Your task to perform on an android device: add a contact in the contacts app Image 0: 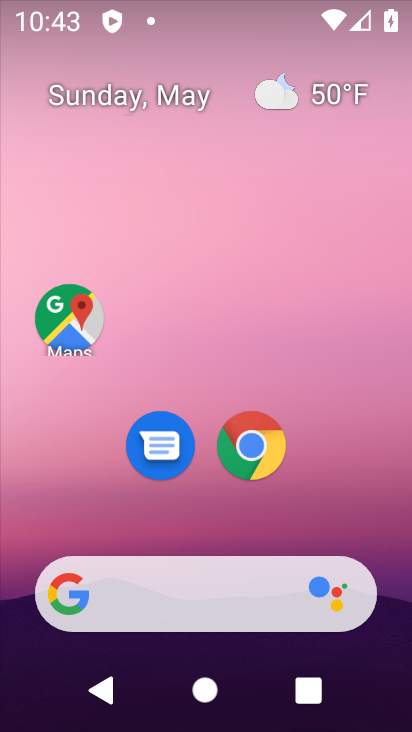
Step 0: drag from (192, 512) to (189, 34)
Your task to perform on an android device: add a contact in the contacts app Image 1: 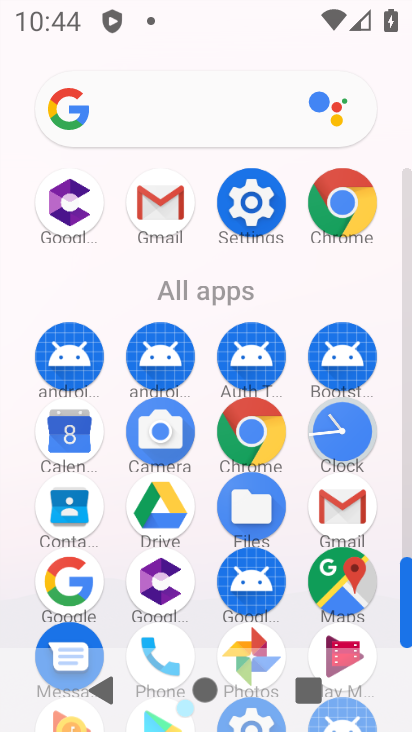
Step 1: click (75, 502)
Your task to perform on an android device: add a contact in the contacts app Image 2: 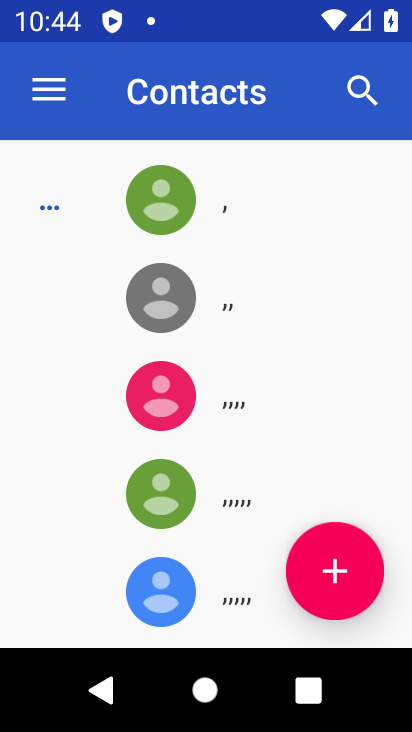
Step 2: click (338, 558)
Your task to perform on an android device: add a contact in the contacts app Image 3: 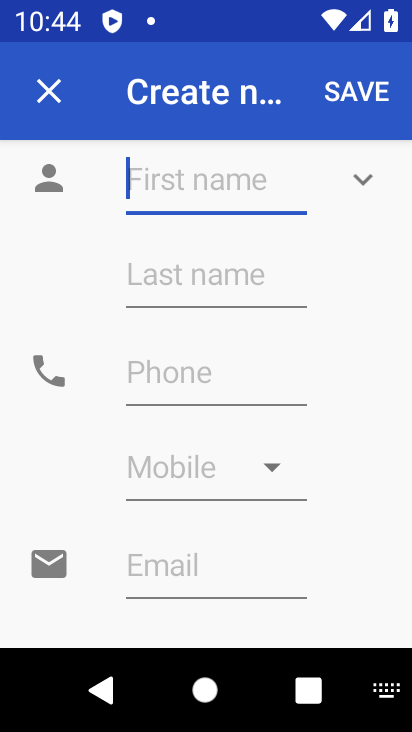
Step 3: type "cluster"
Your task to perform on an android device: add a contact in the contacts app Image 4: 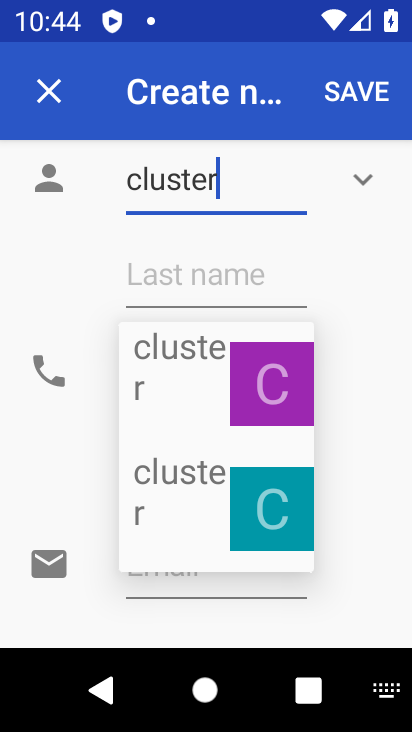
Step 4: type "ed"
Your task to perform on an android device: add a contact in the contacts app Image 5: 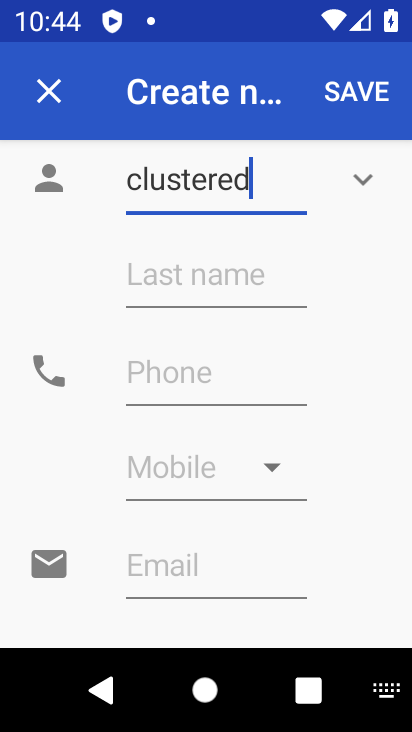
Step 5: click (351, 104)
Your task to perform on an android device: add a contact in the contacts app Image 6: 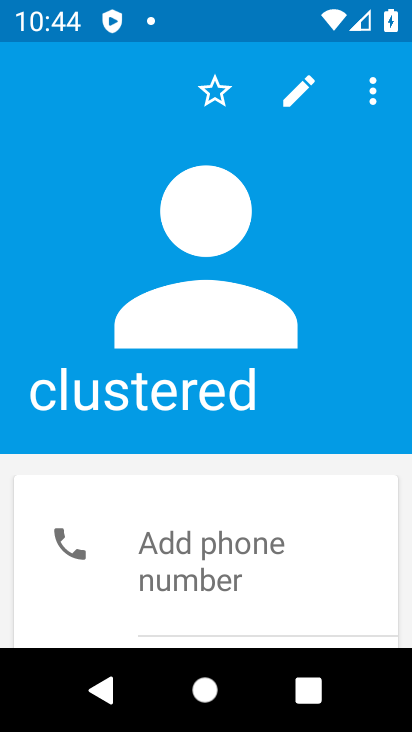
Step 6: task complete